Your task to perform on an android device: Open ESPN.com Image 0: 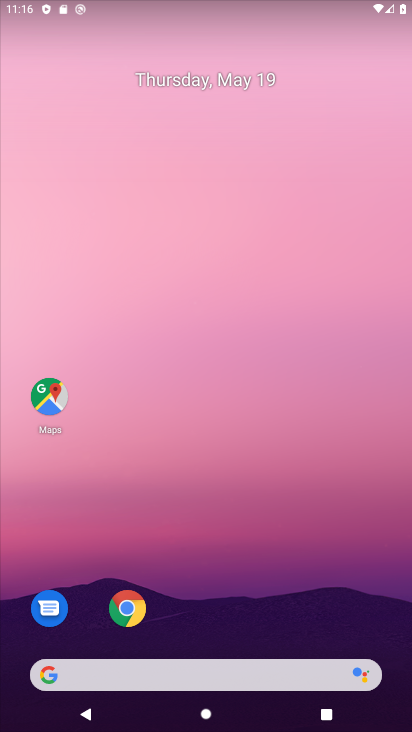
Step 0: drag from (370, 618) to (366, 179)
Your task to perform on an android device: Open ESPN.com Image 1: 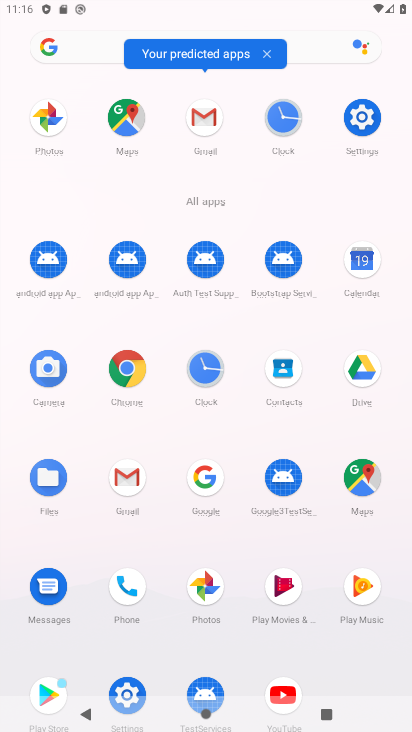
Step 1: click (134, 379)
Your task to perform on an android device: Open ESPN.com Image 2: 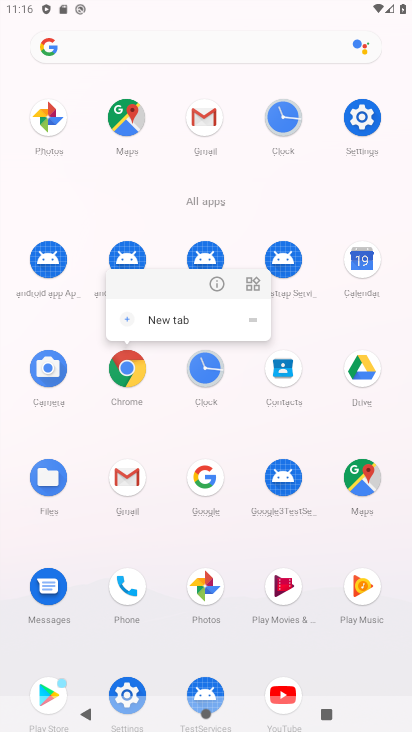
Step 2: click (132, 378)
Your task to perform on an android device: Open ESPN.com Image 3: 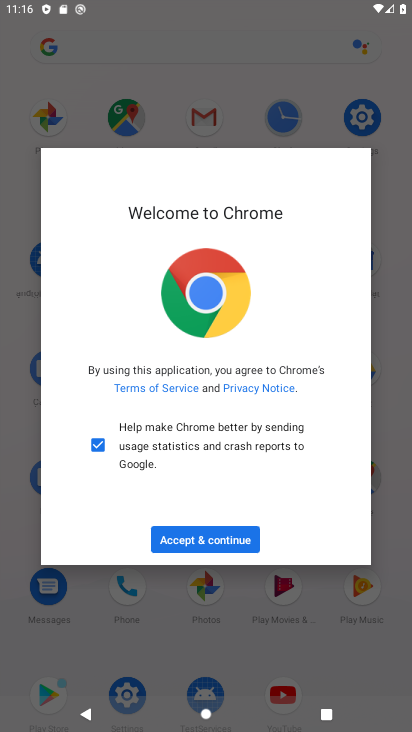
Step 3: click (242, 546)
Your task to perform on an android device: Open ESPN.com Image 4: 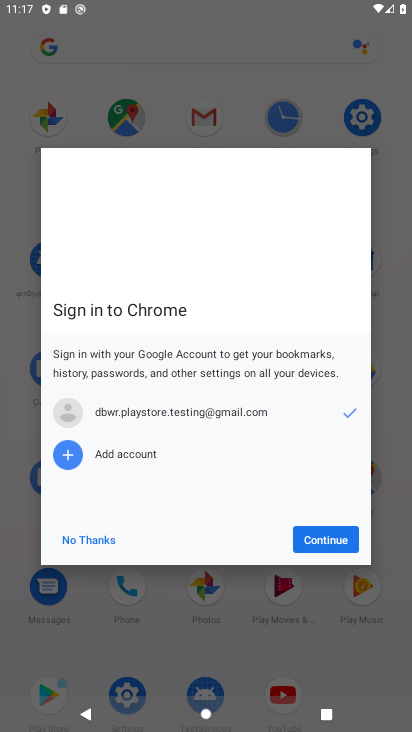
Step 4: click (316, 530)
Your task to perform on an android device: Open ESPN.com Image 5: 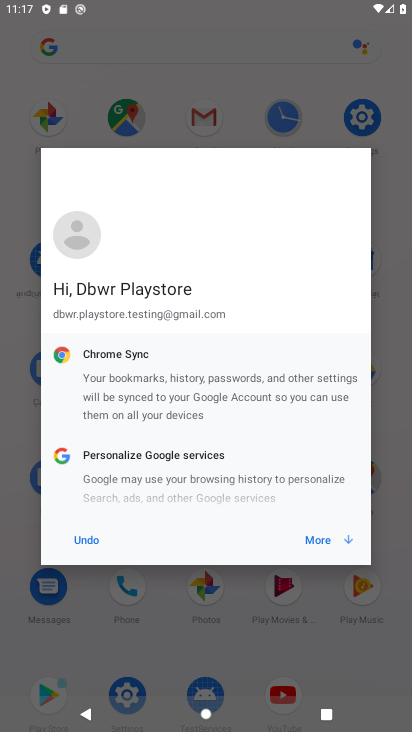
Step 5: click (318, 543)
Your task to perform on an android device: Open ESPN.com Image 6: 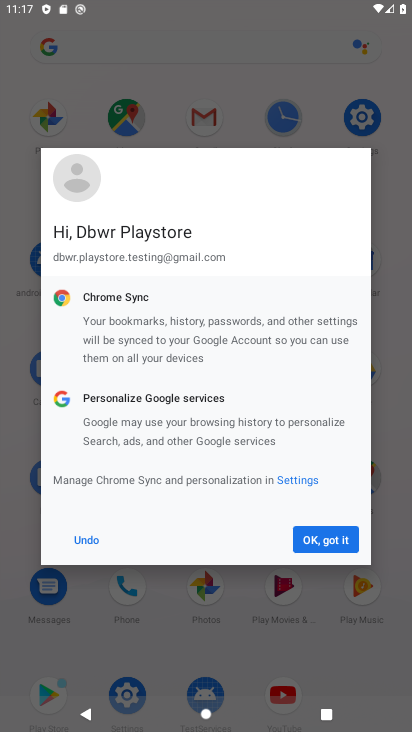
Step 6: click (318, 543)
Your task to perform on an android device: Open ESPN.com Image 7: 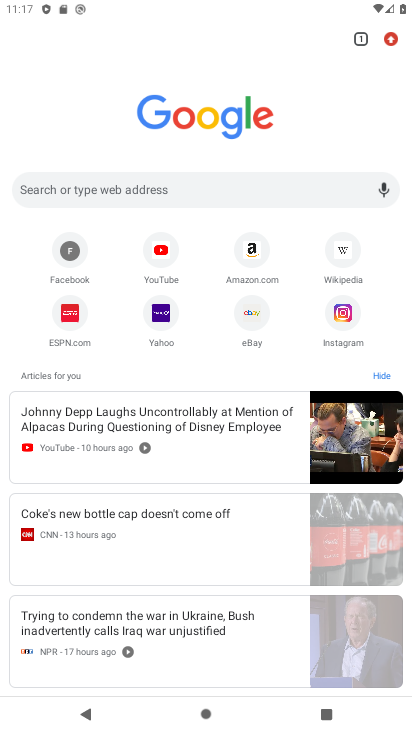
Step 7: click (64, 324)
Your task to perform on an android device: Open ESPN.com Image 8: 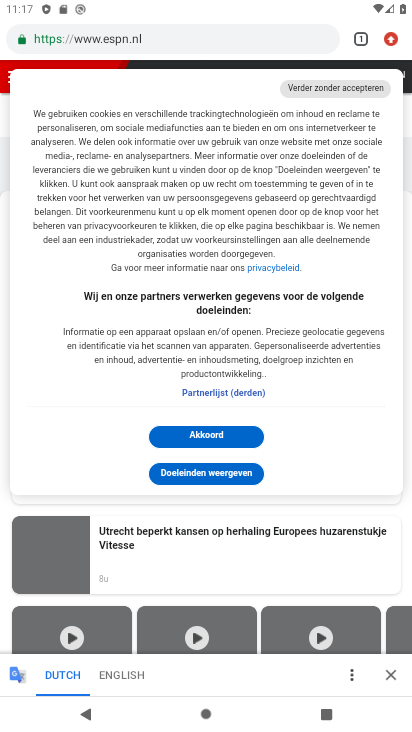
Step 8: task complete